Your task to perform on an android device: set default search engine in the chrome app Image 0: 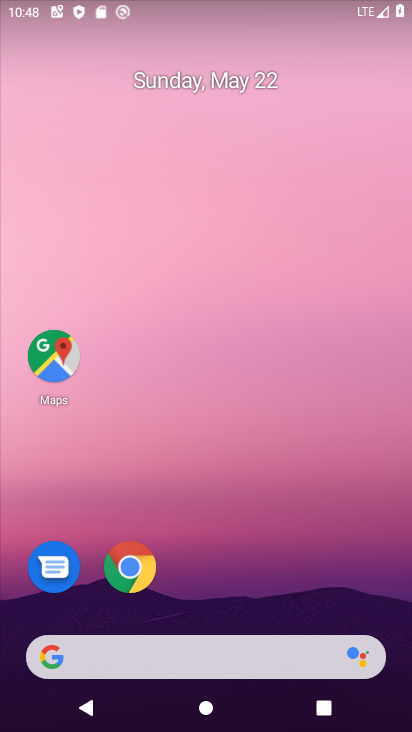
Step 0: drag from (254, 510) to (244, 7)
Your task to perform on an android device: set default search engine in the chrome app Image 1: 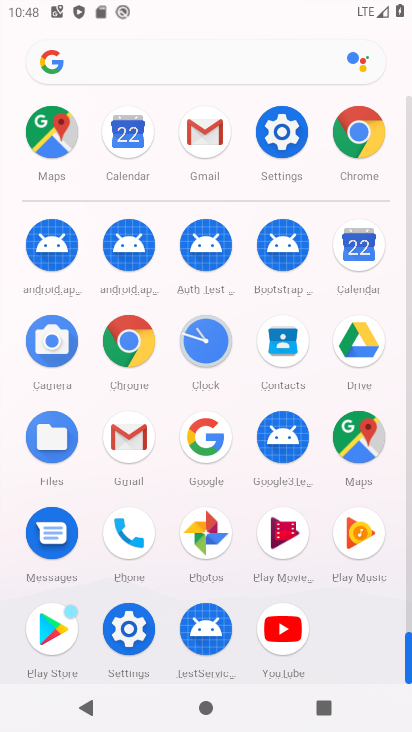
Step 1: click (124, 341)
Your task to perform on an android device: set default search engine in the chrome app Image 2: 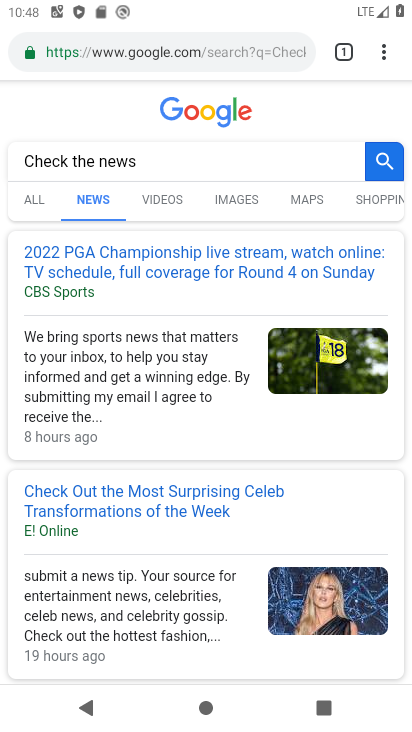
Step 2: task complete